Your task to perform on an android device: change your default location settings in chrome Image 0: 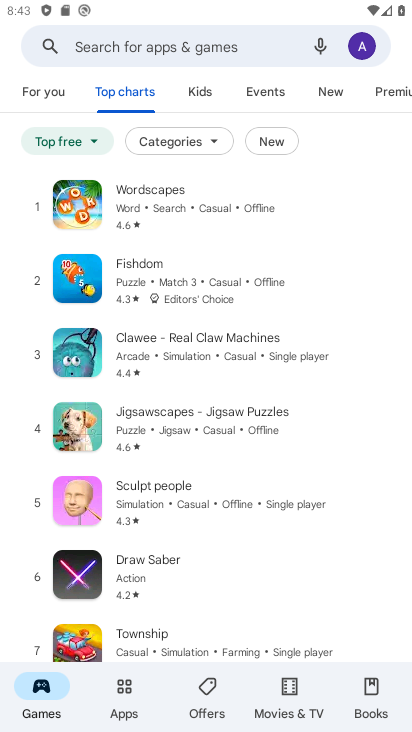
Step 0: press home button
Your task to perform on an android device: change your default location settings in chrome Image 1: 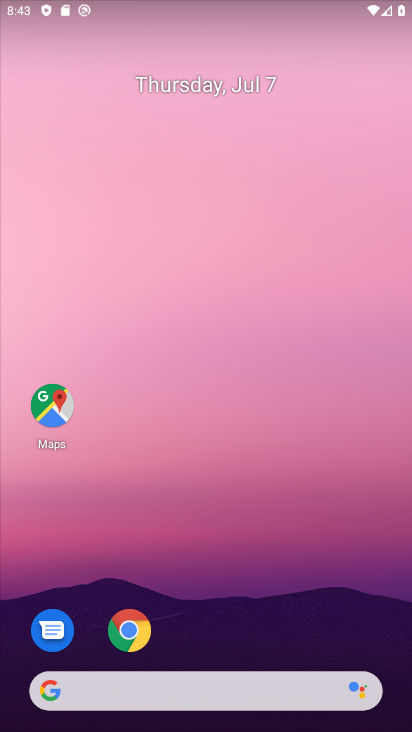
Step 1: click (131, 618)
Your task to perform on an android device: change your default location settings in chrome Image 2: 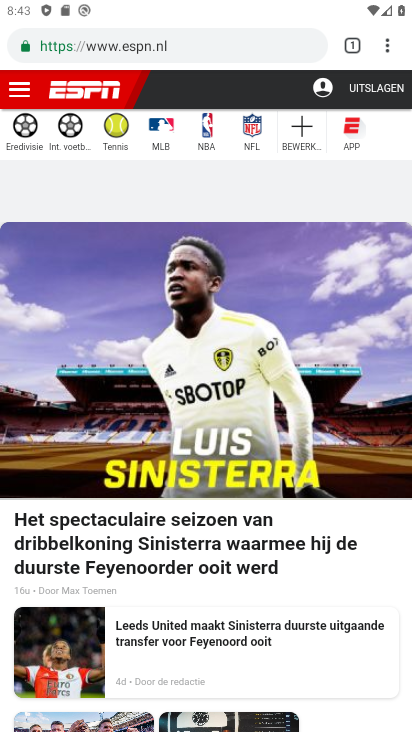
Step 2: click (387, 48)
Your task to perform on an android device: change your default location settings in chrome Image 3: 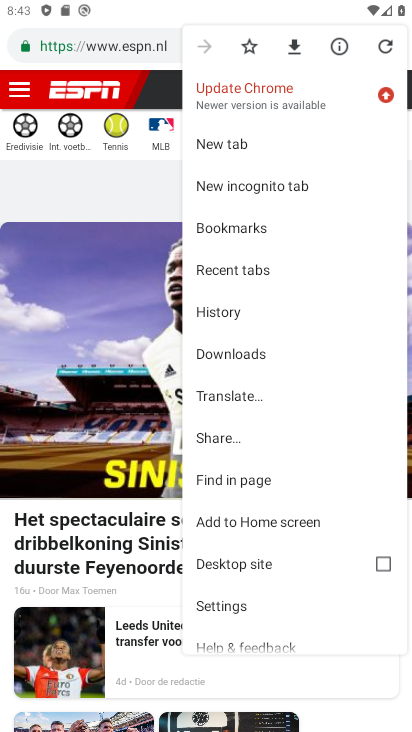
Step 3: click (235, 599)
Your task to perform on an android device: change your default location settings in chrome Image 4: 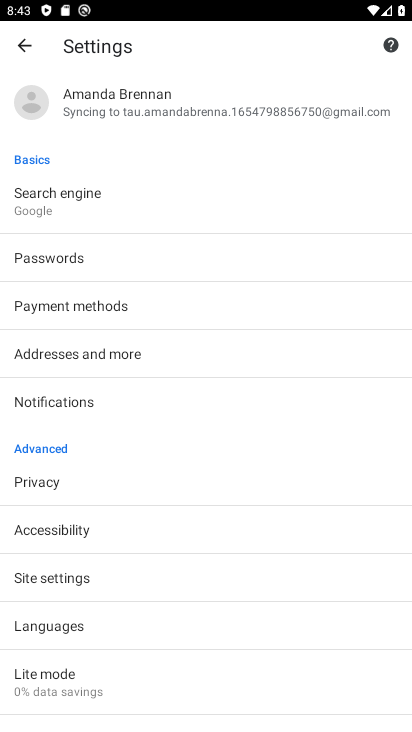
Step 4: drag from (179, 593) to (212, 263)
Your task to perform on an android device: change your default location settings in chrome Image 5: 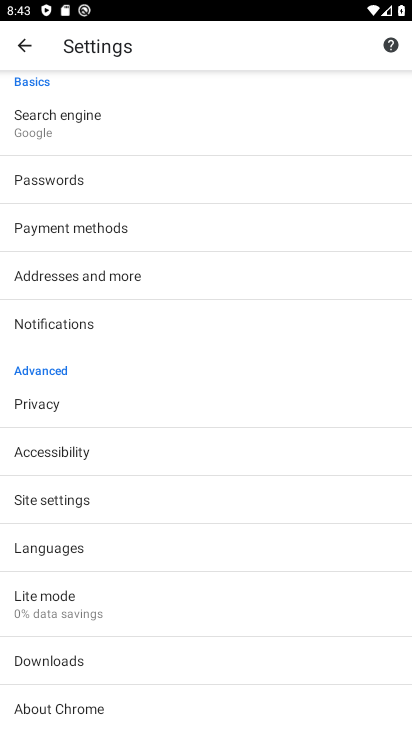
Step 5: click (95, 509)
Your task to perform on an android device: change your default location settings in chrome Image 6: 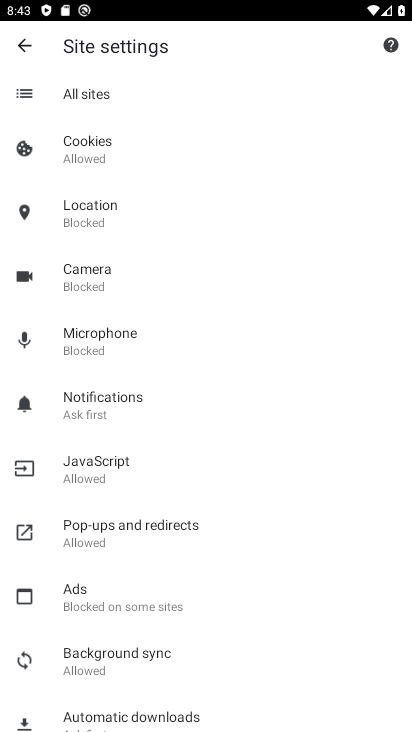
Step 6: click (109, 206)
Your task to perform on an android device: change your default location settings in chrome Image 7: 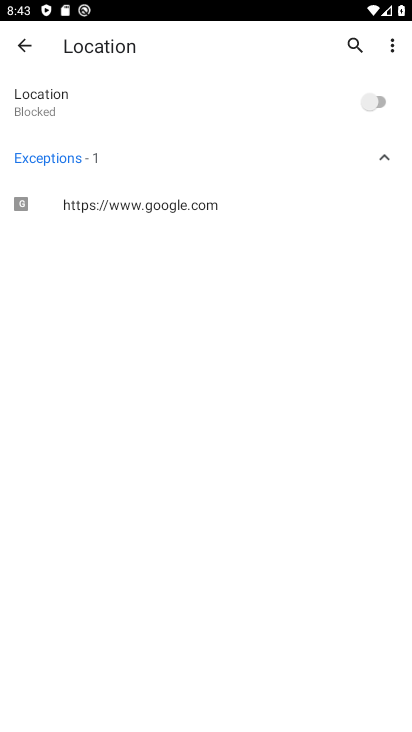
Step 7: click (382, 103)
Your task to perform on an android device: change your default location settings in chrome Image 8: 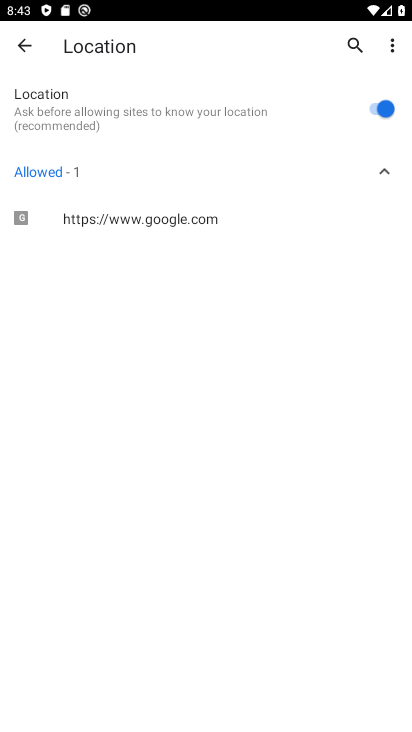
Step 8: task complete